Your task to perform on an android device: delete the emails in spam in the gmail app Image 0: 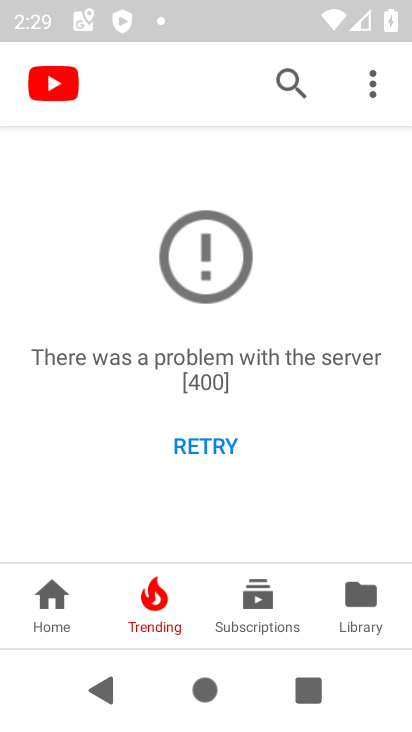
Step 0: press back button
Your task to perform on an android device: delete the emails in spam in the gmail app Image 1: 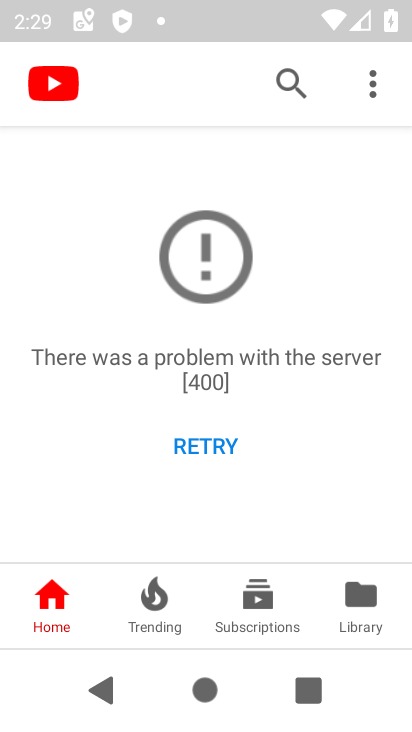
Step 1: press back button
Your task to perform on an android device: delete the emails in spam in the gmail app Image 2: 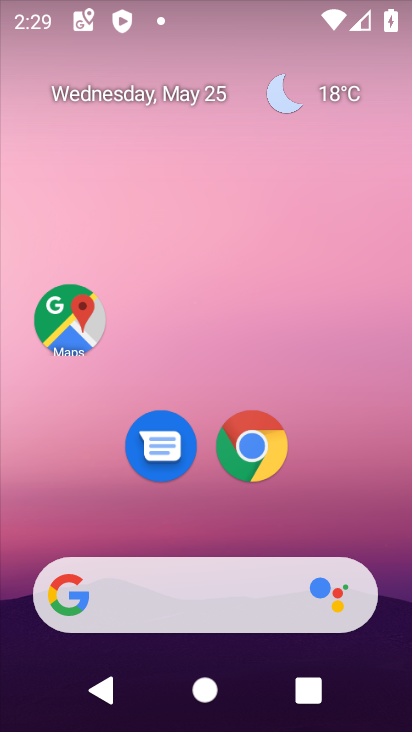
Step 2: drag from (217, 579) to (222, 185)
Your task to perform on an android device: delete the emails in spam in the gmail app Image 3: 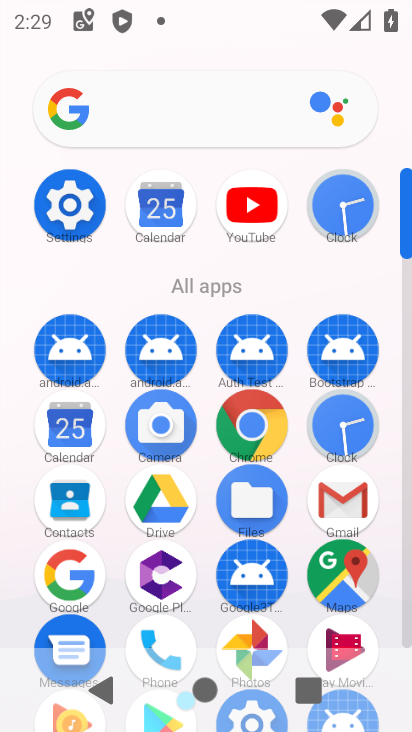
Step 3: click (340, 515)
Your task to perform on an android device: delete the emails in spam in the gmail app Image 4: 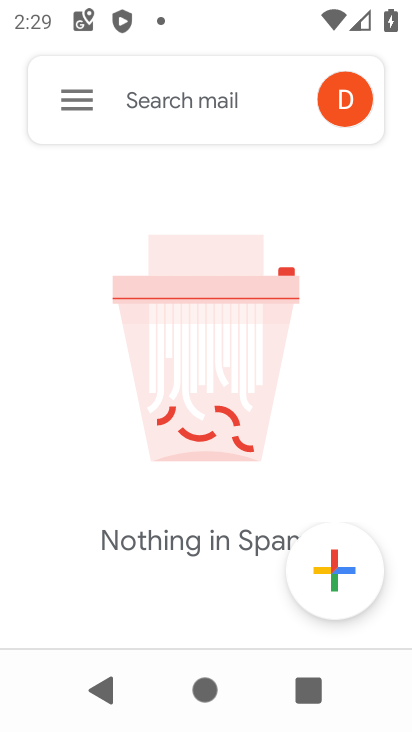
Step 4: click (67, 112)
Your task to perform on an android device: delete the emails in spam in the gmail app Image 5: 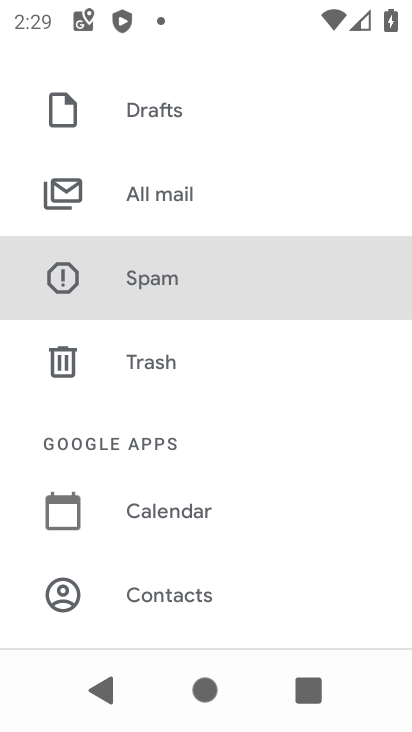
Step 5: click (187, 296)
Your task to perform on an android device: delete the emails in spam in the gmail app Image 6: 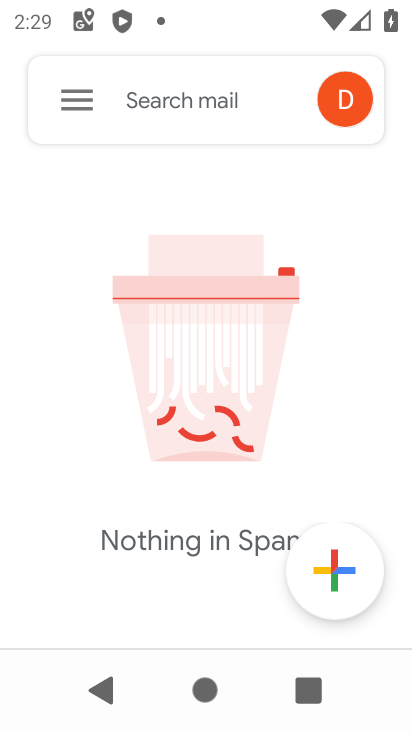
Step 6: task complete